Your task to perform on an android device: What's the weather? Image 0: 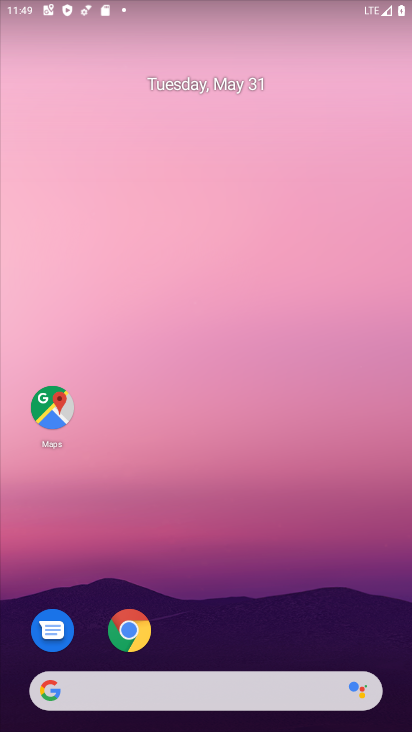
Step 0: click (268, 692)
Your task to perform on an android device: What's the weather? Image 1: 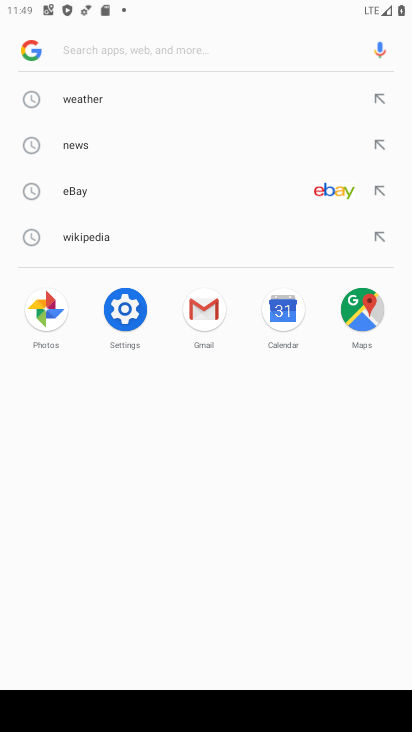
Step 1: click (108, 99)
Your task to perform on an android device: What's the weather? Image 2: 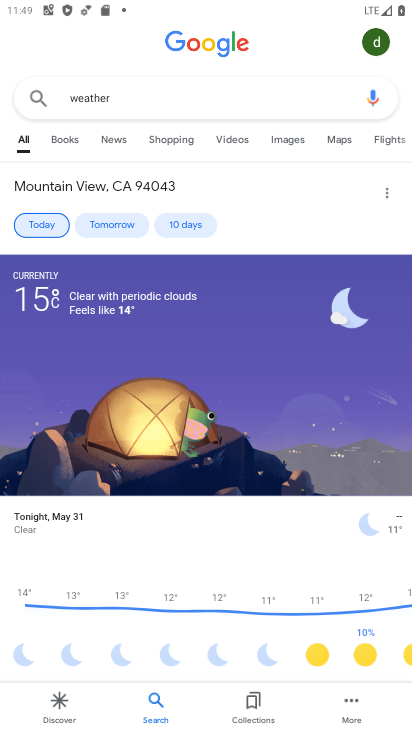
Step 2: task complete